Your task to perform on an android device: change timer sound Image 0: 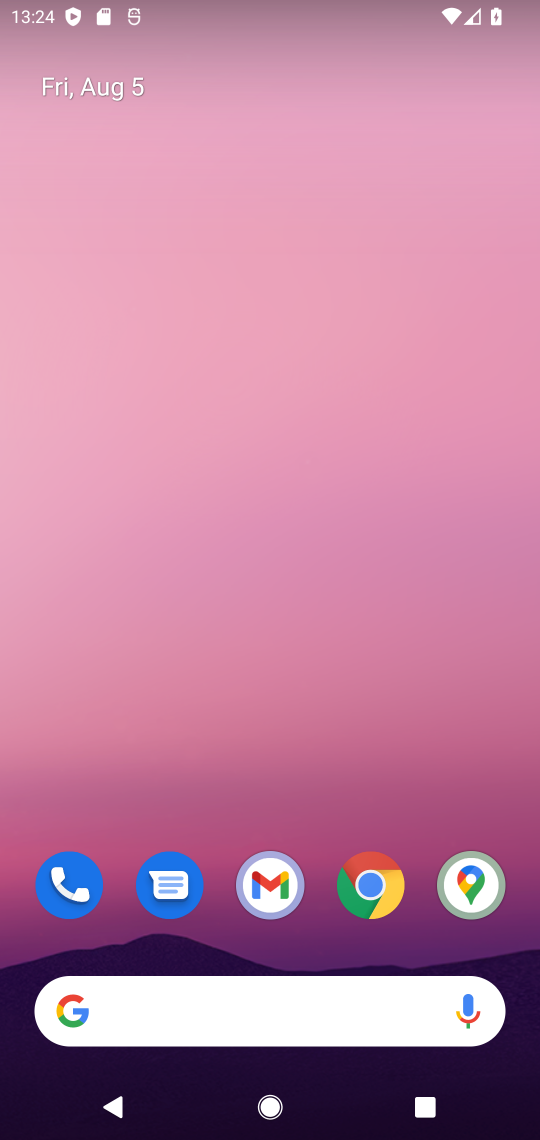
Step 0: drag from (252, 655) to (223, 395)
Your task to perform on an android device: change timer sound Image 1: 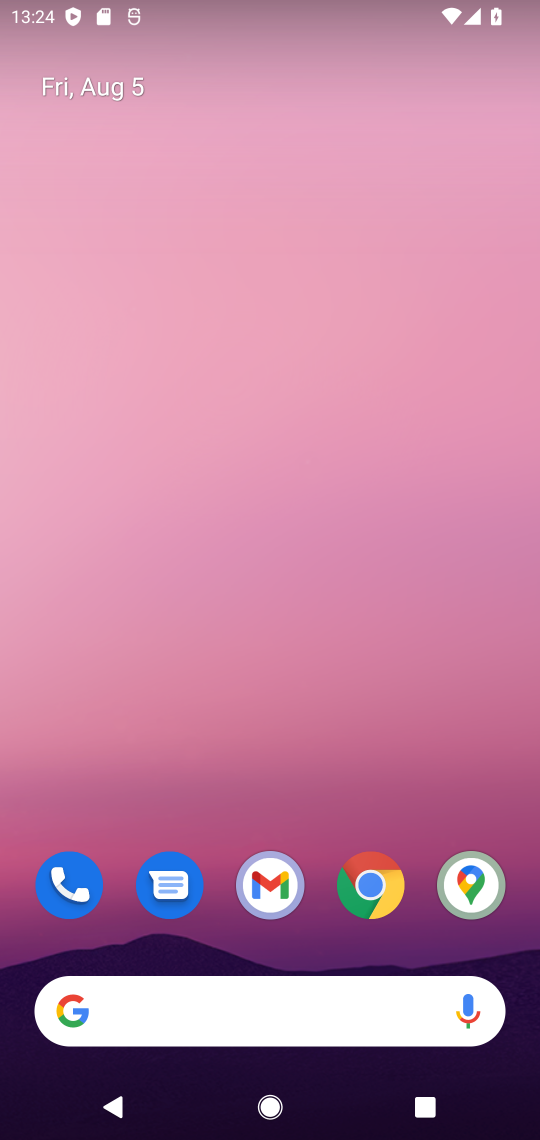
Step 1: drag from (212, 584) to (224, 137)
Your task to perform on an android device: change timer sound Image 2: 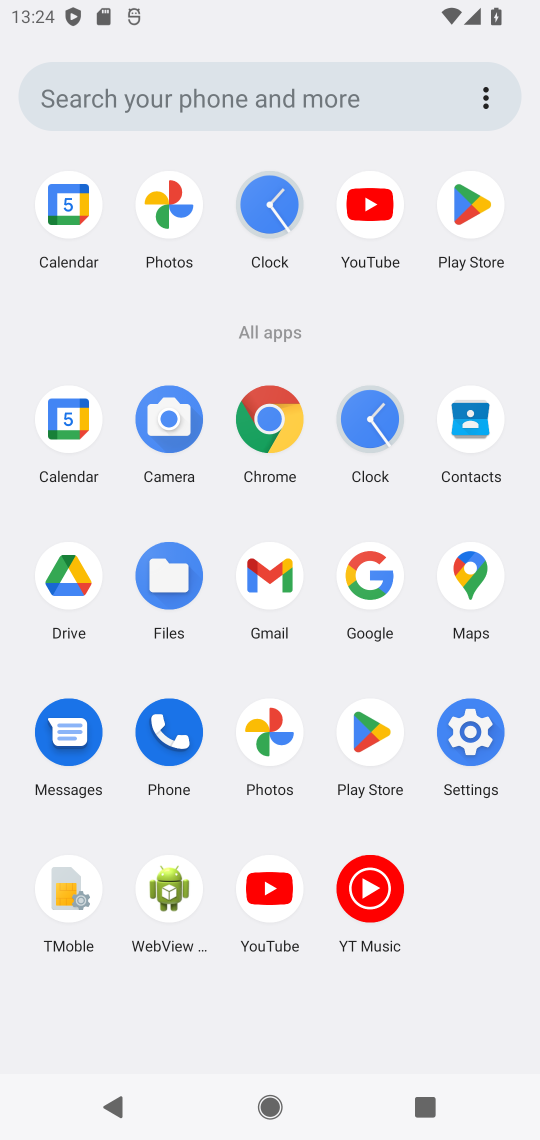
Step 2: click (367, 428)
Your task to perform on an android device: change timer sound Image 3: 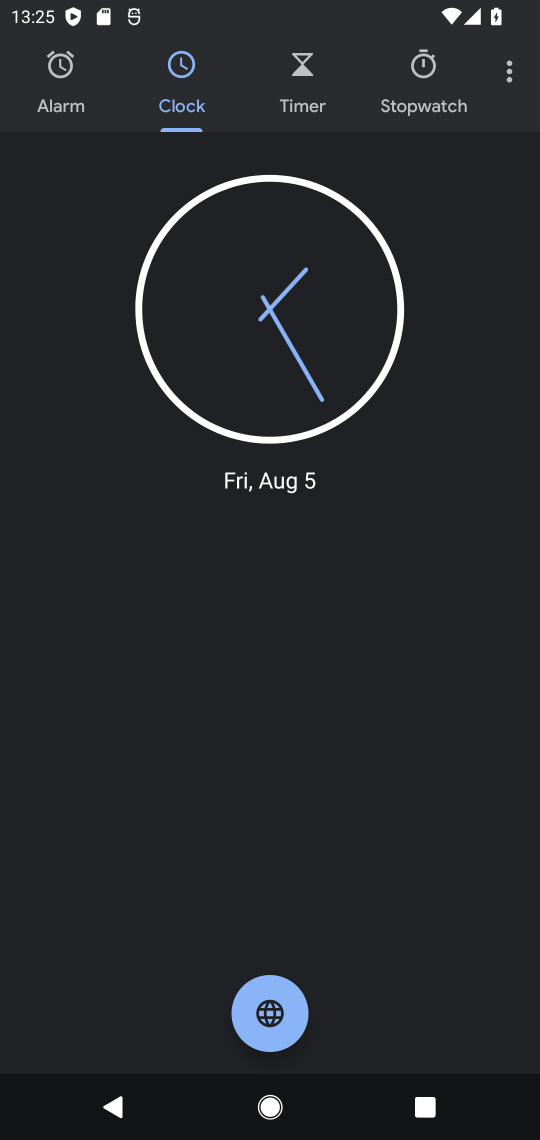
Step 3: click (510, 81)
Your task to perform on an android device: change timer sound Image 4: 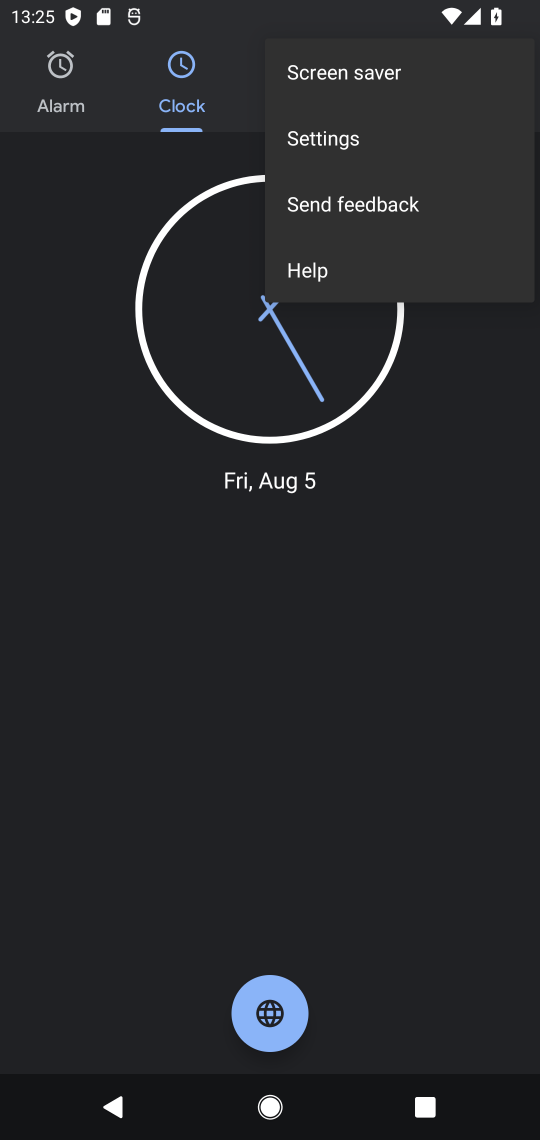
Step 4: click (325, 135)
Your task to perform on an android device: change timer sound Image 5: 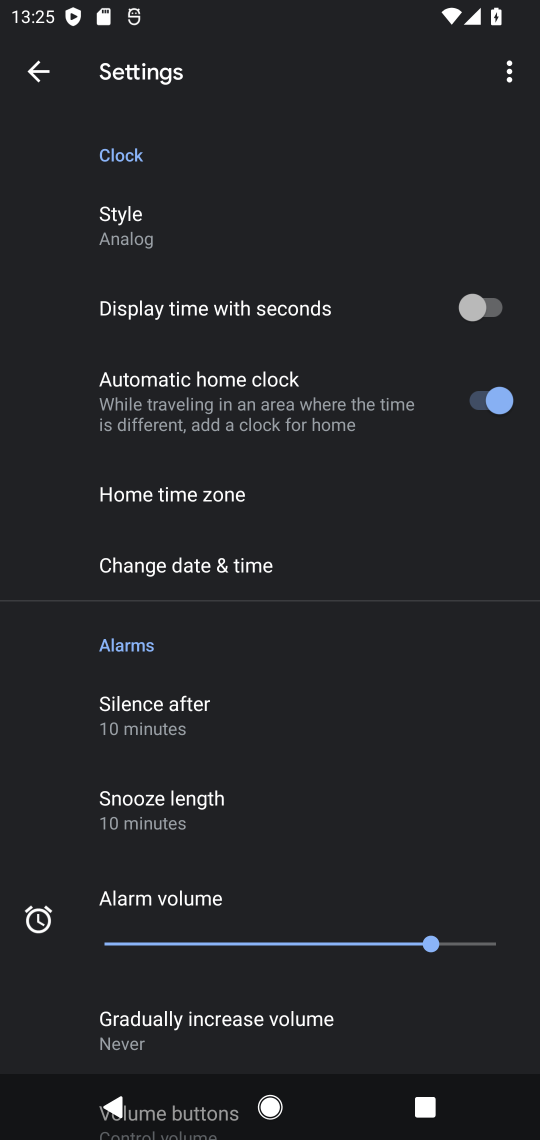
Step 5: drag from (264, 843) to (237, 516)
Your task to perform on an android device: change timer sound Image 6: 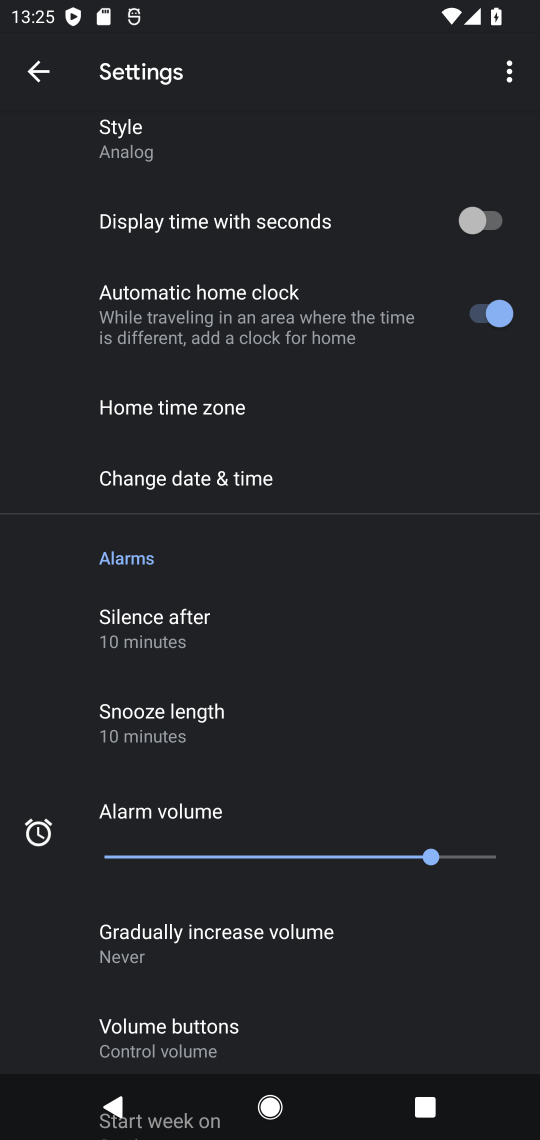
Step 6: drag from (260, 912) to (173, 173)
Your task to perform on an android device: change timer sound Image 7: 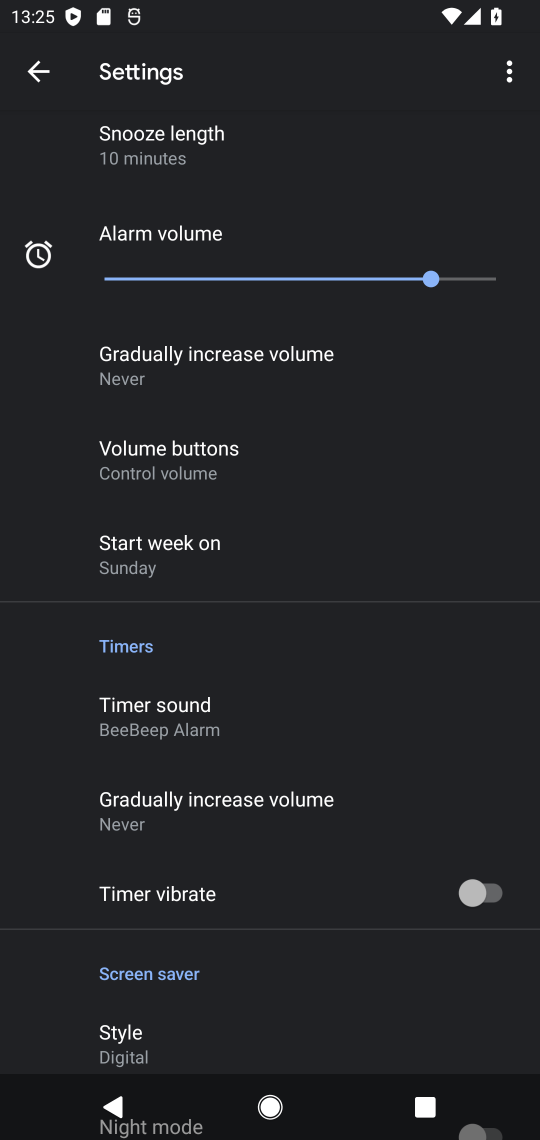
Step 7: click (184, 735)
Your task to perform on an android device: change timer sound Image 8: 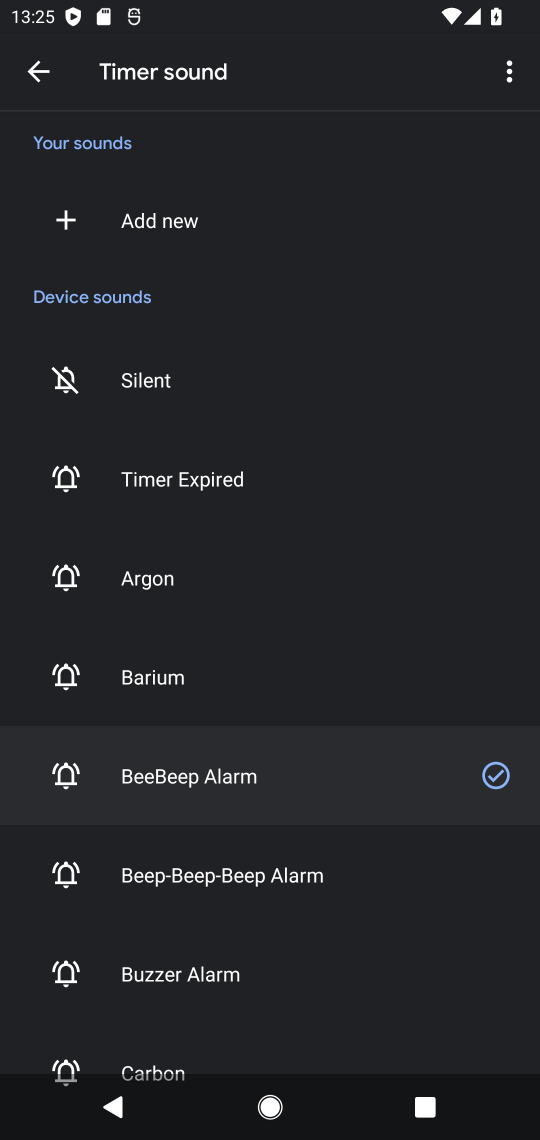
Step 8: click (72, 603)
Your task to perform on an android device: change timer sound Image 9: 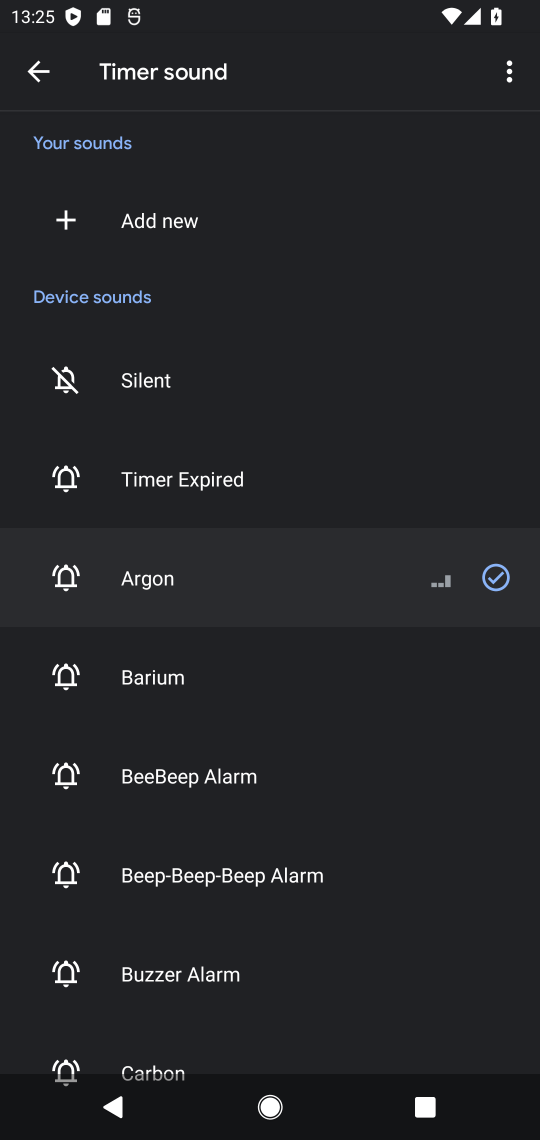
Step 9: task complete